Your task to perform on an android device: Show me popular videos on Youtube Image 0: 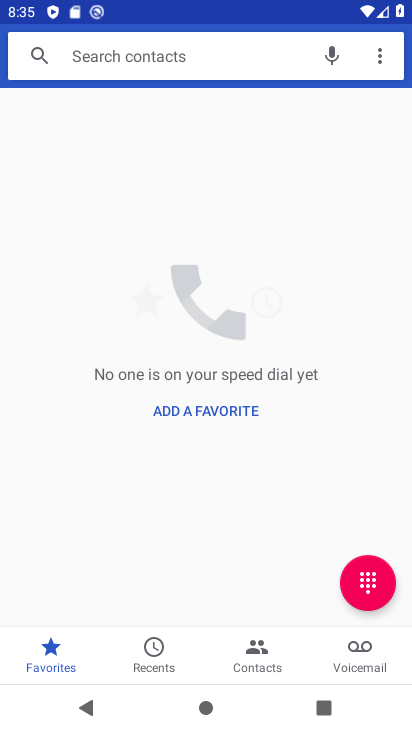
Step 0: press home button
Your task to perform on an android device: Show me popular videos on Youtube Image 1: 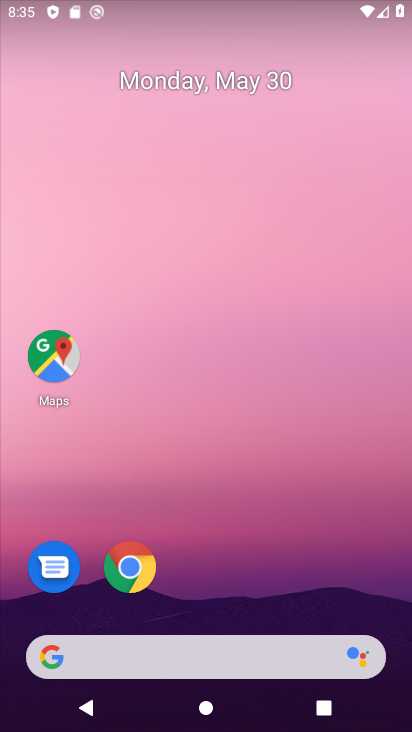
Step 1: drag from (225, 601) to (218, 244)
Your task to perform on an android device: Show me popular videos on Youtube Image 2: 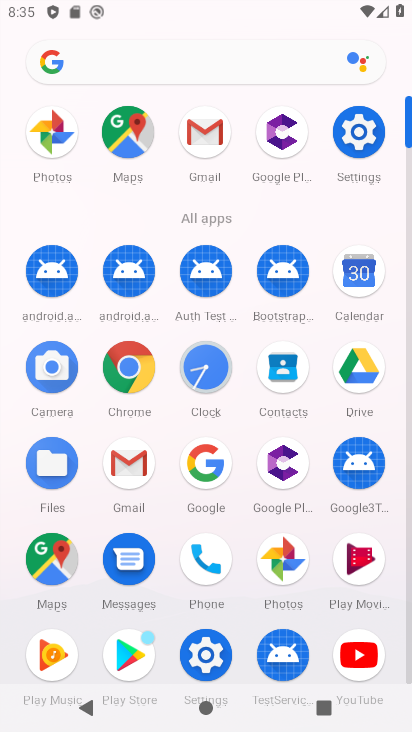
Step 2: click (359, 645)
Your task to perform on an android device: Show me popular videos on Youtube Image 3: 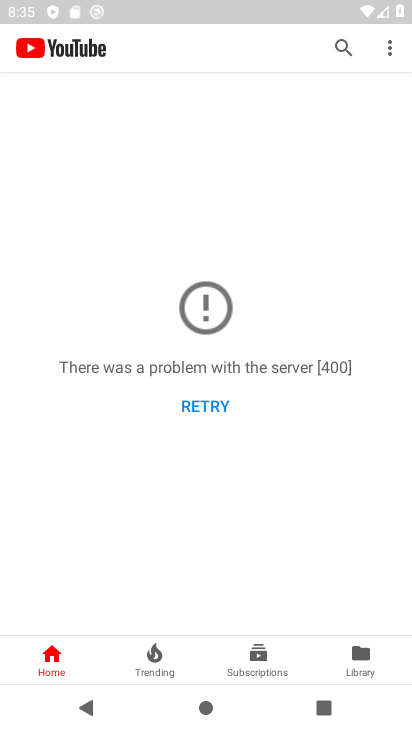
Step 3: click (168, 663)
Your task to perform on an android device: Show me popular videos on Youtube Image 4: 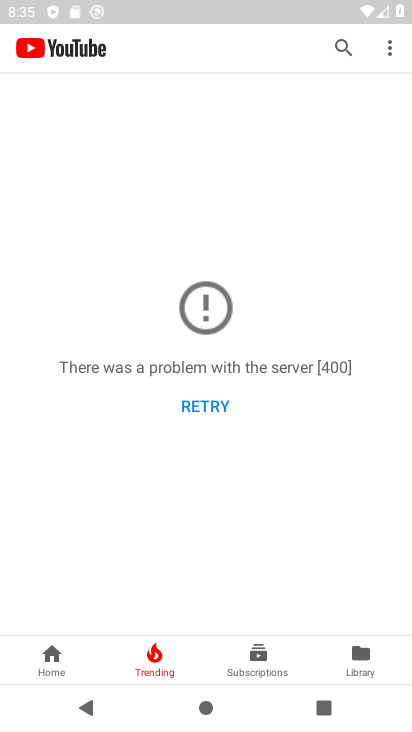
Step 4: task complete